Your task to perform on an android device: Open calendar and show me the second week of next month Image 0: 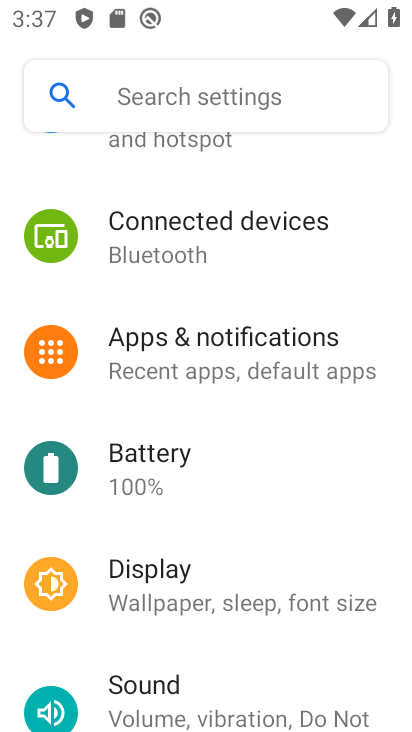
Step 0: press home button
Your task to perform on an android device: Open calendar and show me the second week of next month Image 1: 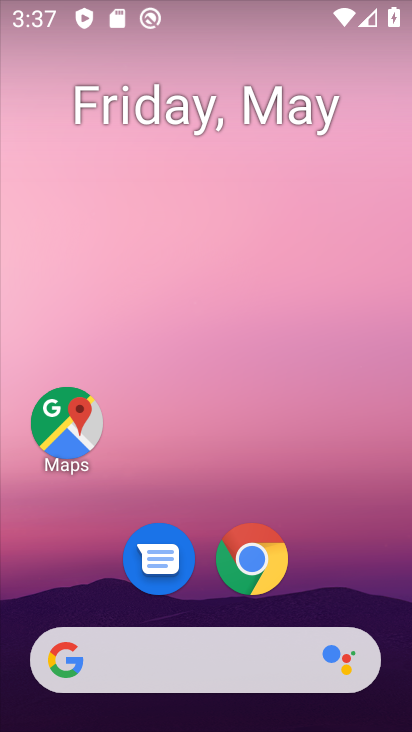
Step 1: drag from (314, 527) to (319, 47)
Your task to perform on an android device: Open calendar and show me the second week of next month Image 2: 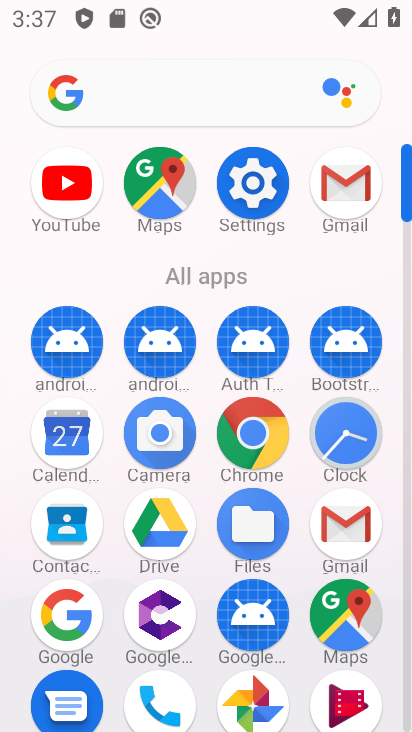
Step 2: click (78, 433)
Your task to perform on an android device: Open calendar and show me the second week of next month Image 3: 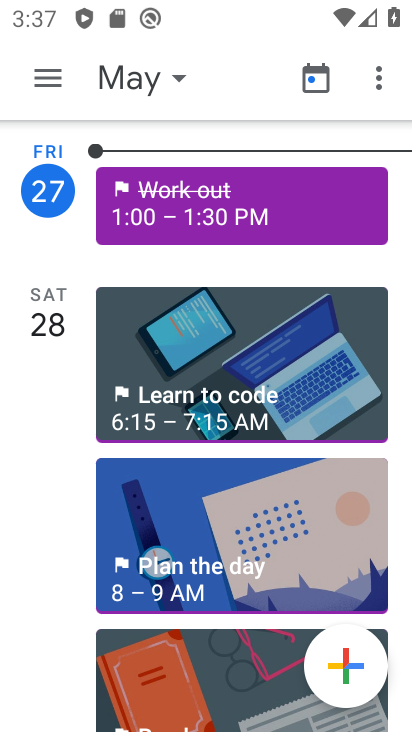
Step 3: click (55, 97)
Your task to perform on an android device: Open calendar and show me the second week of next month Image 4: 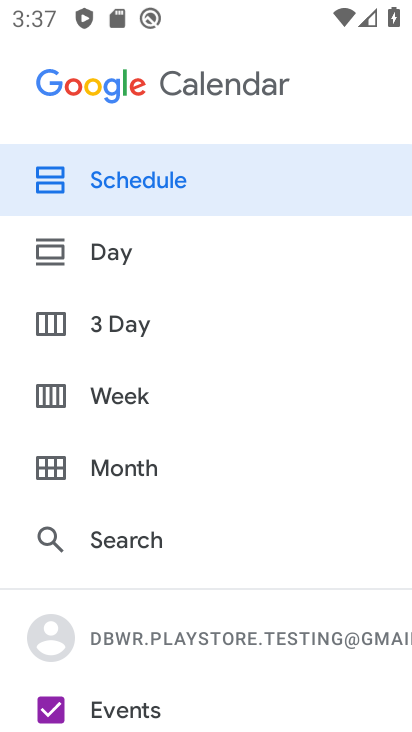
Step 4: click (148, 453)
Your task to perform on an android device: Open calendar and show me the second week of next month Image 5: 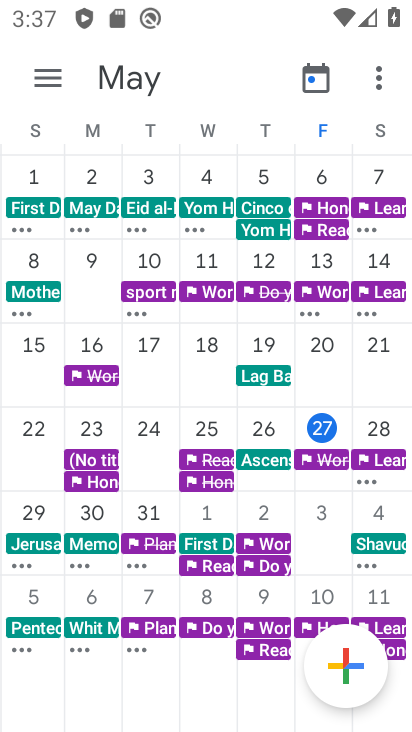
Step 5: task complete